Your task to perform on an android device: What is the news today? Image 0: 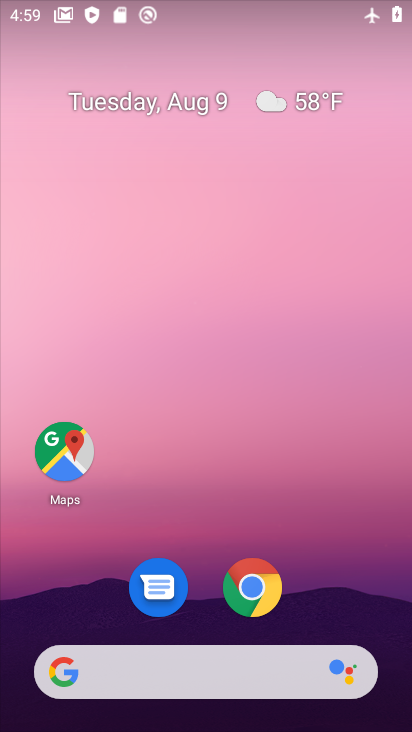
Step 0: drag from (189, 308) to (147, 283)
Your task to perform on an android device: What is the news today? Image 1: 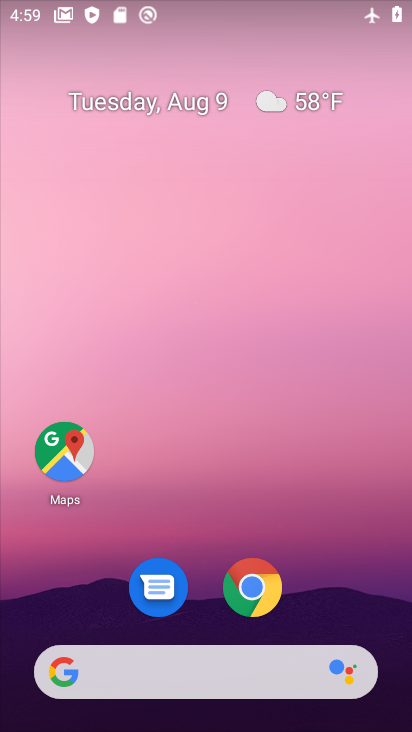
Step 1: drag from (206, 526) to (149, 250)
Your task to perform on an android device: What is the news today? Image 2: 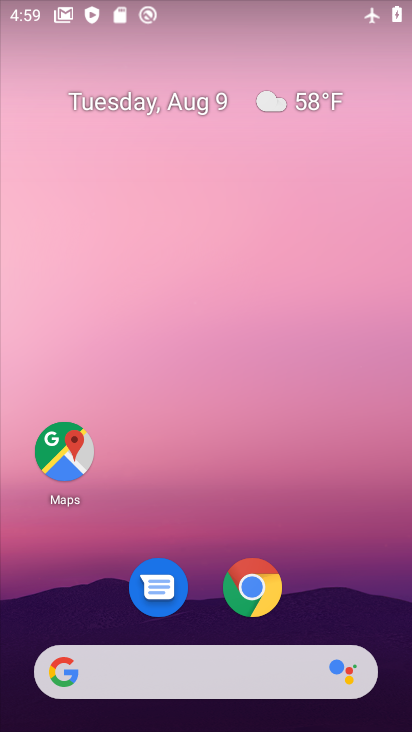
Step 2: drag from (215, 452) to (181, 167)
Your task to perform on an android device: What is the news today? Image 3: 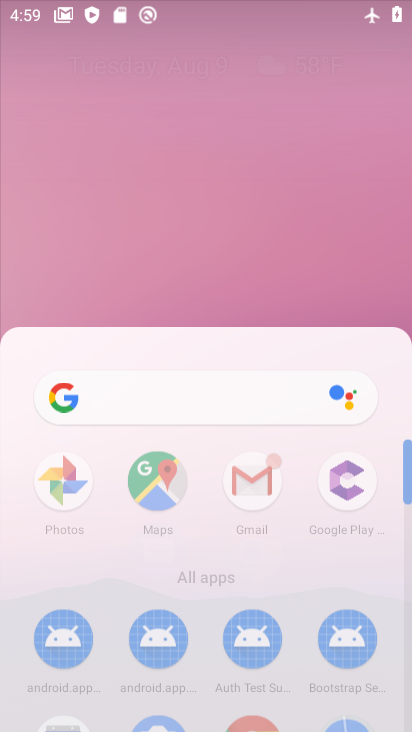
Step 3: drag from (204, 381) to (184, 125)
Your task to perform on an android device: What is the news today? Image 4: 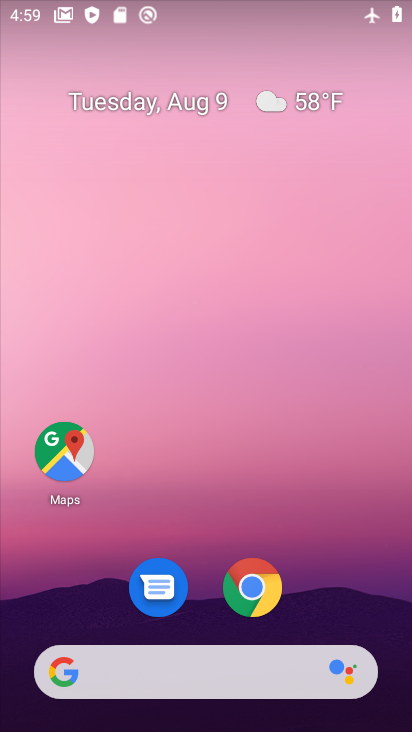
Step 4: click (252, 592)
Your task to perform on an android device: What is the news today? Image 5: 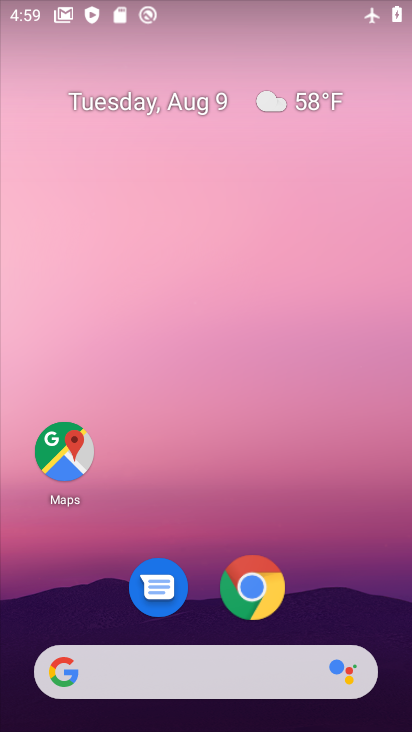
Step 5: click (252, 592)
Your task to perform on an android device: What is the news today? Image 6: 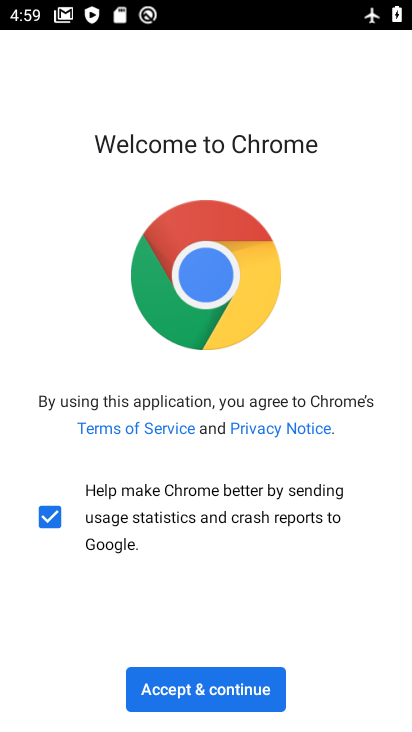
Step 6: click (223, 686)
Your task to perform on an android device: What is the news today? Image 7: 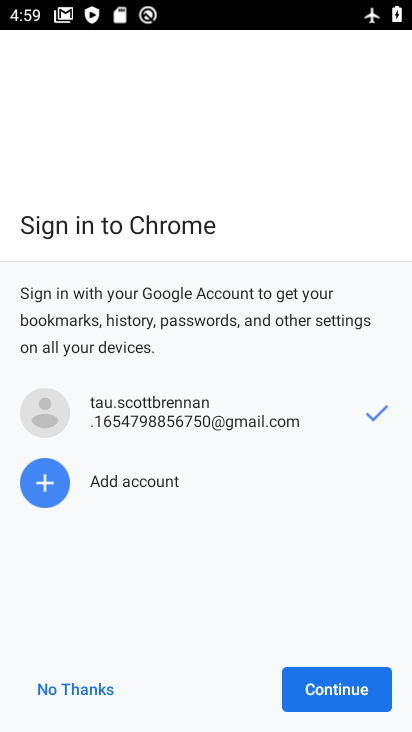
Step 7: click (233, 693)
Your task to perform on an android device: What is the news today? Image 8: 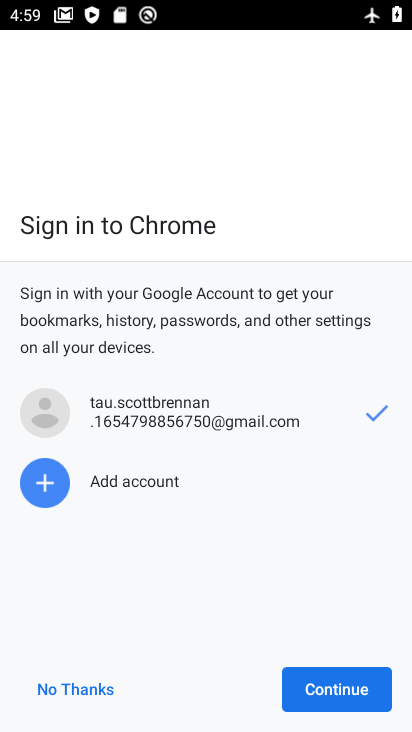
Step 8: click (234, 694)
Your task to perform on an android device: What is the news today? Image 9: 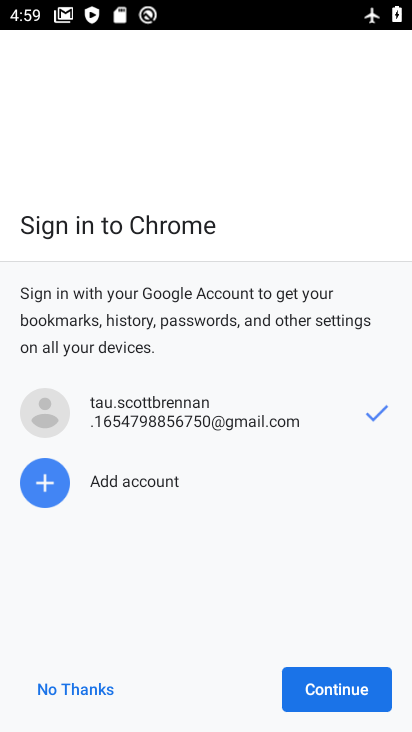
Step 9: click (73, 680)
Your task to perform on an android device: What is the news today? Image 10: 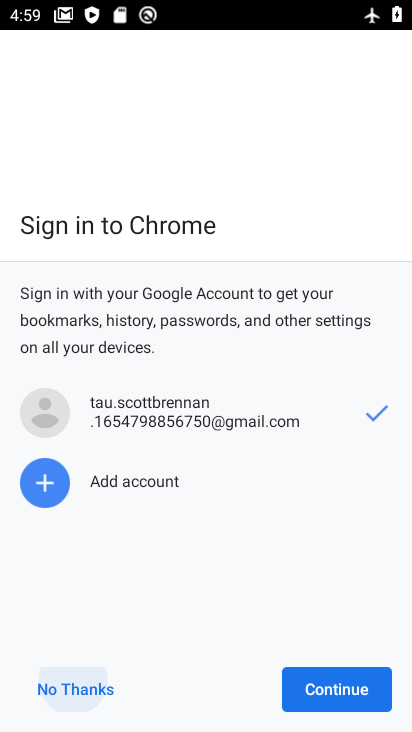
Step 10: click (72, 679)
Your task to perform on an android device: What is the news today? Image 11: 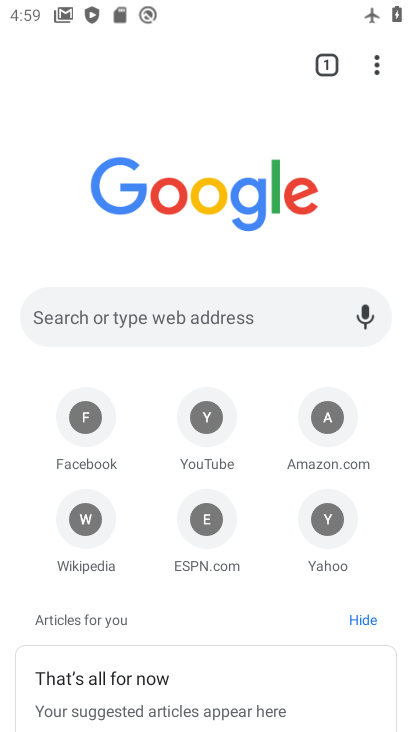
Step 11: drag from (213, 534) to (150, 176)
Your task to perform on an android device: What is the news today? Image 12: 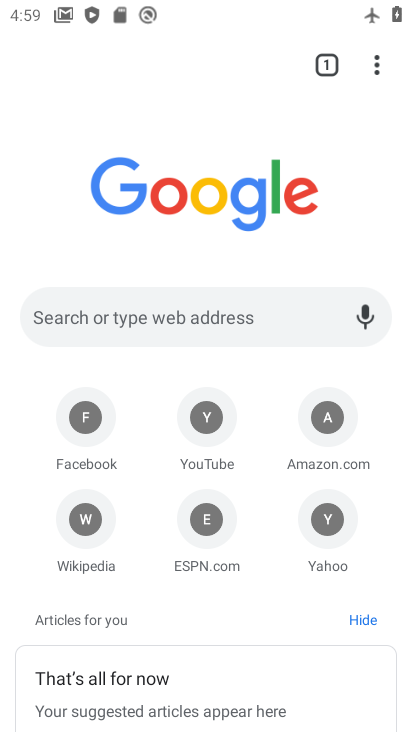
Step 12: drag from (209, 568) to (216, 101)
Your task to perform on an android device: What is the news today? Image 13: 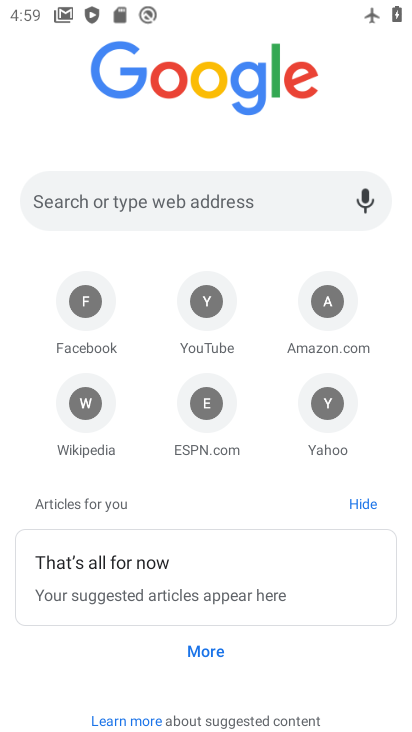
Step 13: drag from (240, 499) to (156, 205)
Your task to perform on an android device: What is the news today? Image 14: 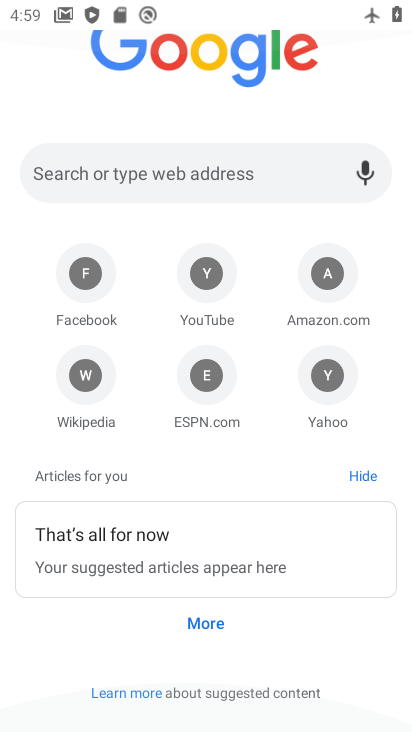
Step 14: drag from (161, 492) to (178, 223)
Your task to perform on an android device: What is the news today? Image 15: 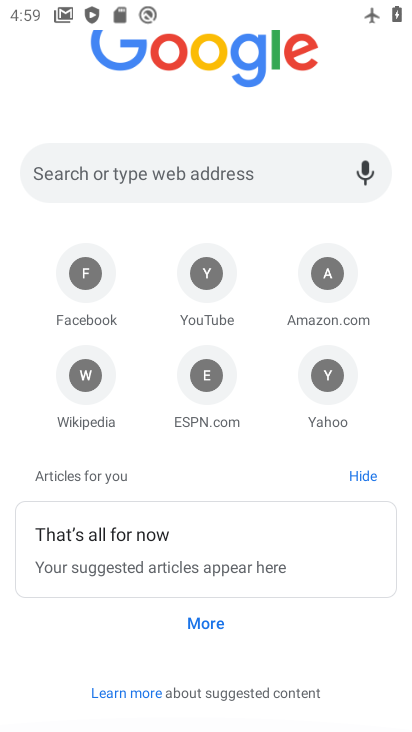
Step 15: drag from (183, 559) to (207, 261)
Your task to perform on an android device: What is the news today? Image 16: 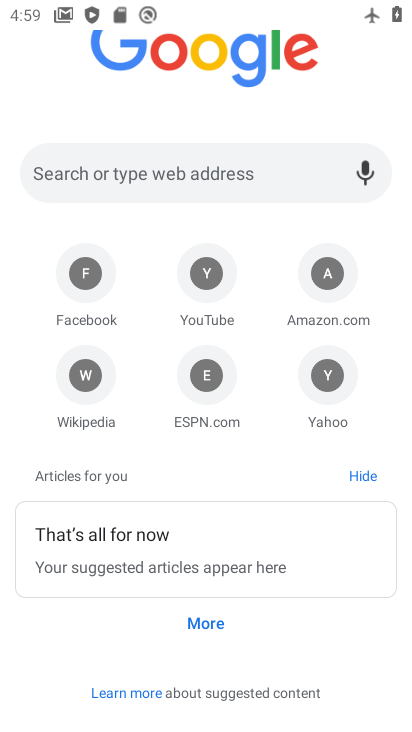
Step 16: drag from (228, 503) to (243, 121)
Your task to perform on an android device: What is the news today? Image 17: 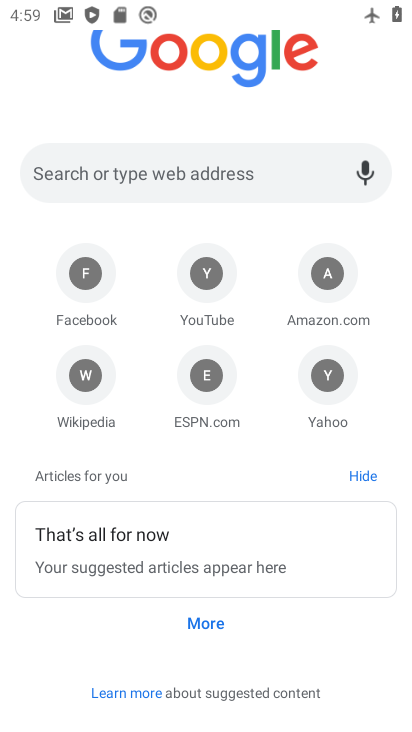
Step 17: drag from (254, 618) to (266, 140)
Your task to perform on an android device: What is the news today? Image 18: 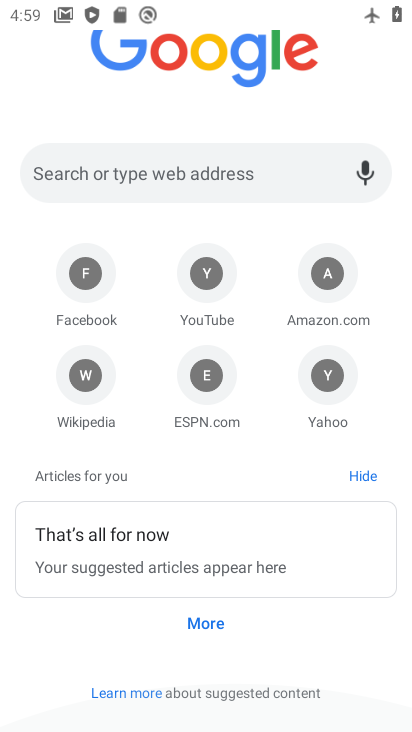
Step 18: click (198, 323)
Your task to perform on an android device: What is the news today? Image 19: 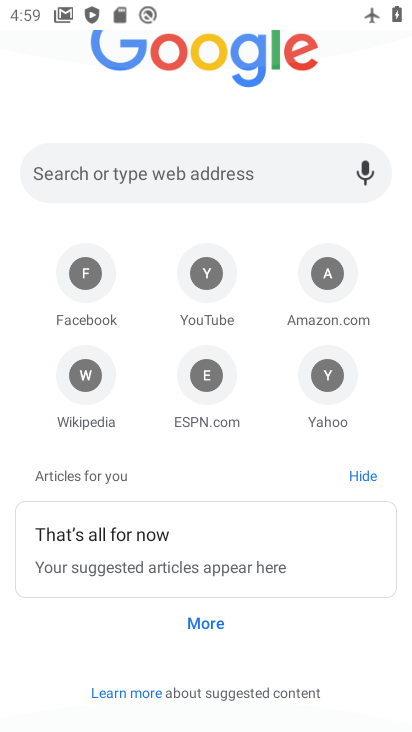
Step 19: drag from (206, 644) to (237, 236)
Your task to perform on an android device: What is the news today? Image 20: 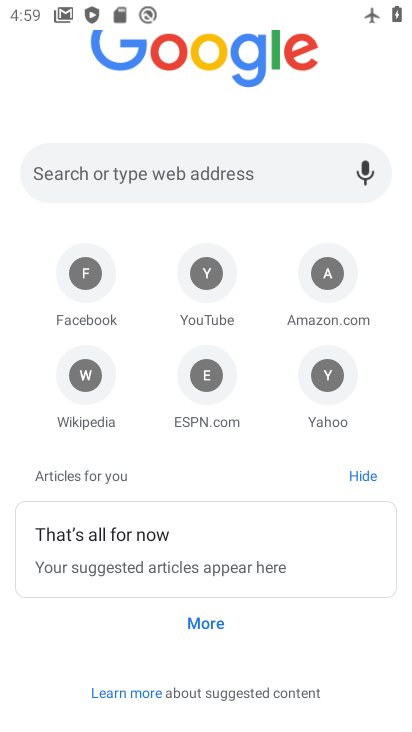
Step 20: click (199, 617)
Your task to perform on an android device: What is the news today? Image 21: 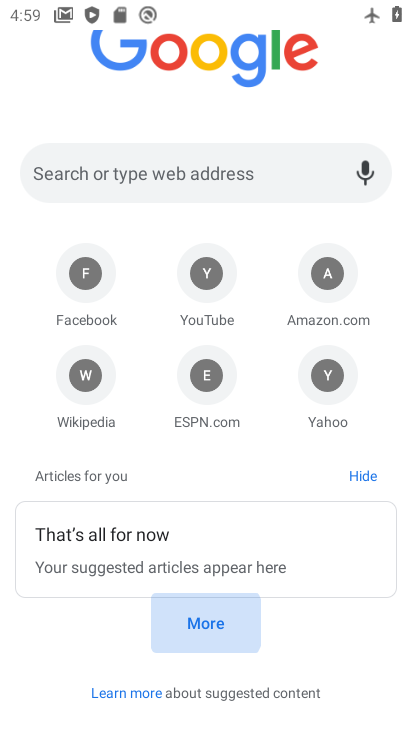
Step 21: click (200, 618)
Your task to perform on an android device: What is the news today? Image 22: 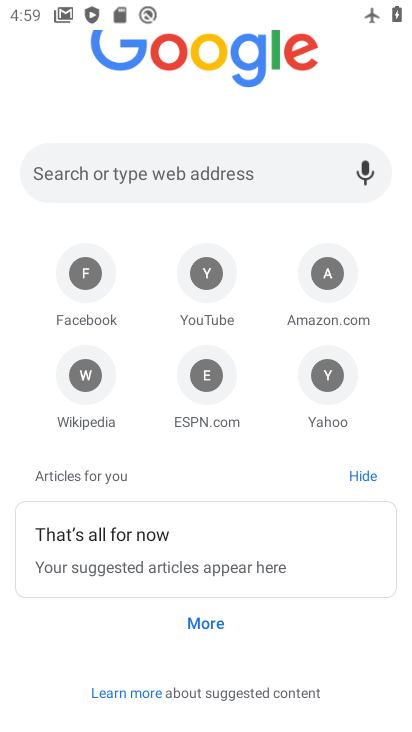
Step 22: click (206, 616)
Your task to perform on an android device: What is the news today? Image 23: 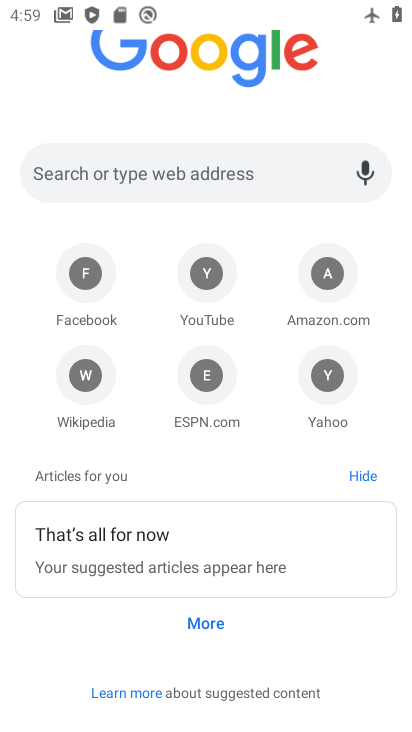
Step 23: click (216, 628)
Your task to perform on an android device: What is the news today? Image 24: 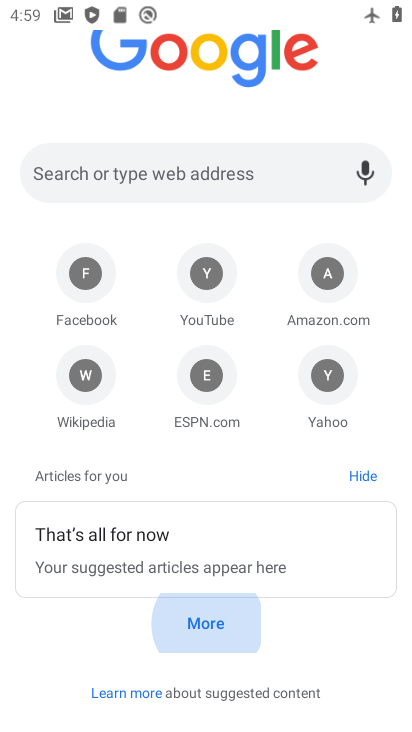
Step 24: click (217, 630)
Your task to perform on an android device: What is the news today? Image 25: 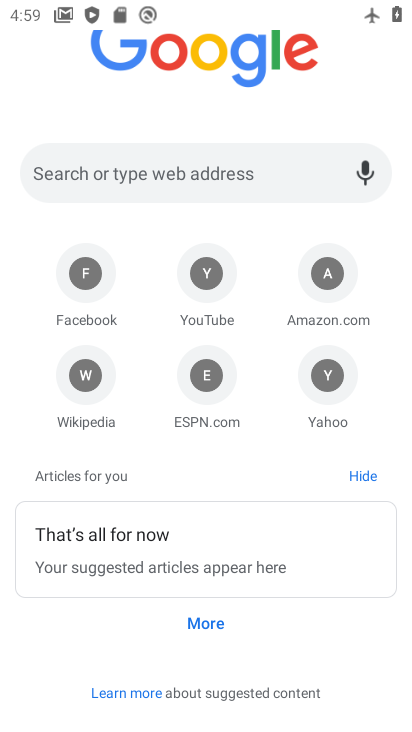
Step 25: click (218, 631)
Your task to perform on an android device: What is the news today? Image 26: 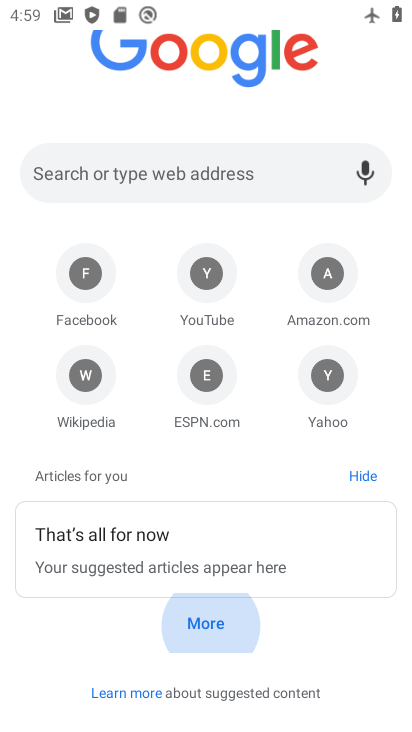
Step 26: click (218, 631)
Your task to perform on an android device: What is the news today? Image 27: 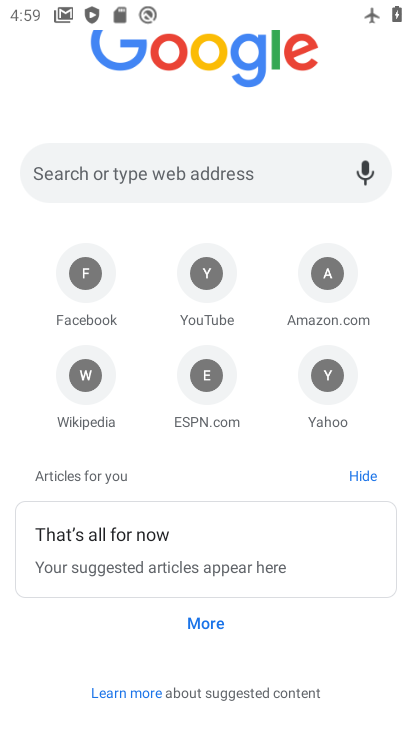
Step 27: drag from (249, 486) to (248, 318)
Your task to perform on an android device: What is the news today? Image 28: 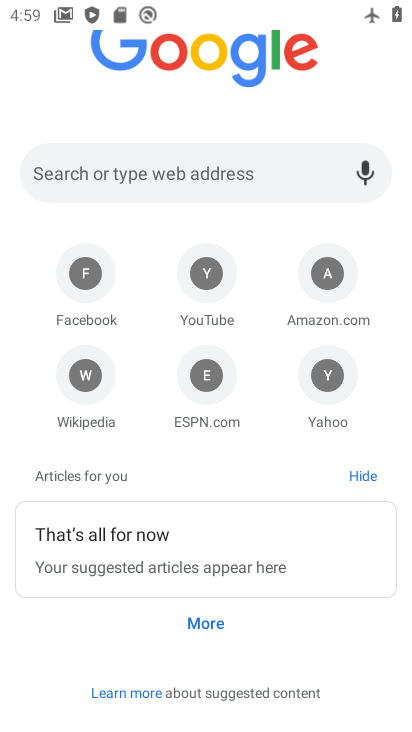
Step 28: drag from (275, 568) to (278, 191)
Your task to perform on an android device: What is the news today? Image 29: 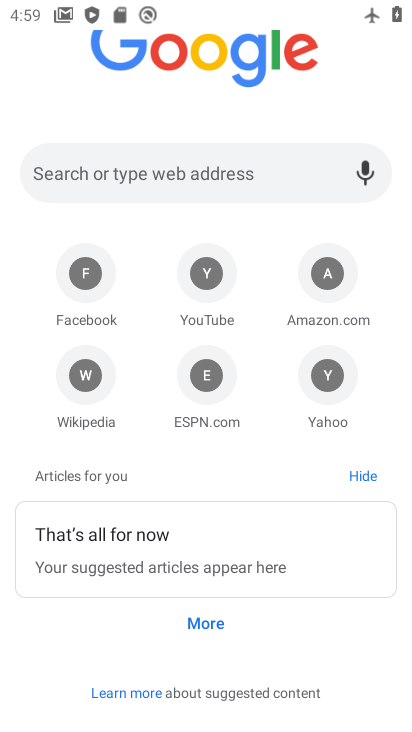
Step 29: click (357, 473)
Your task to perform on an android device: What is the news today? Image 30: 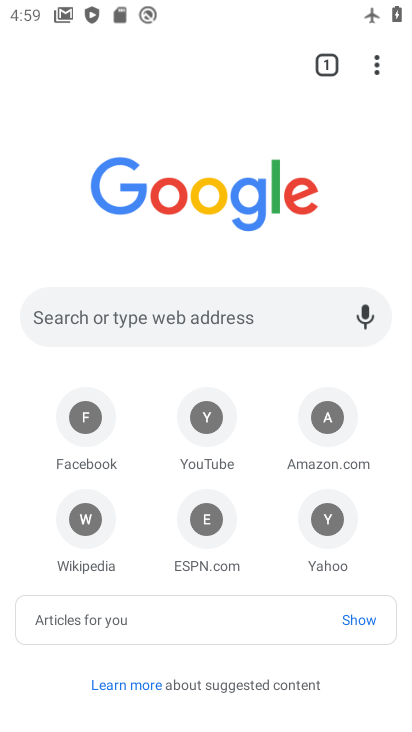
Step 30: drag from (258, 594) to (256, 350)
Your task to perform on an android device: What is the news today? Image 31: 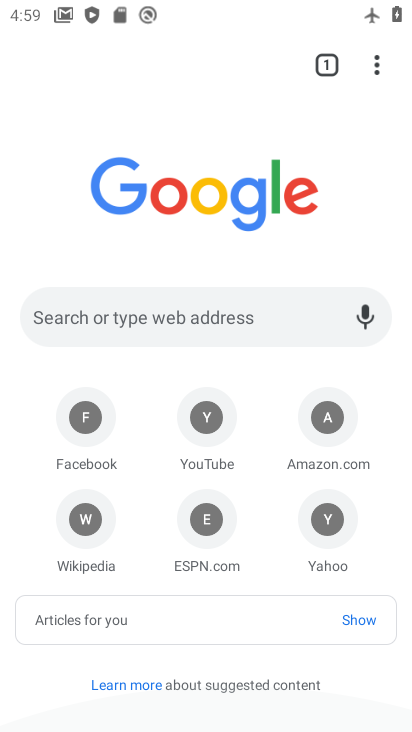
Step 31: drag from (240, 463) to (245, 240)
Your task to perform on an android device: What is the news today? Image 32: 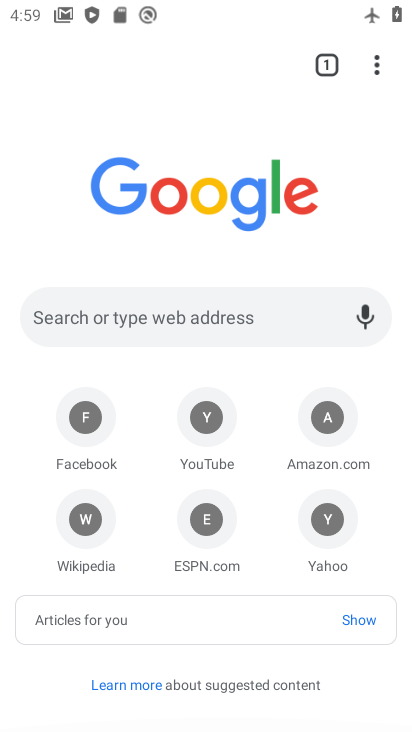
Step 32: drag from (309, 504) to (337, 282)
Your task to perform on an android device: What is the news today? Image 33: 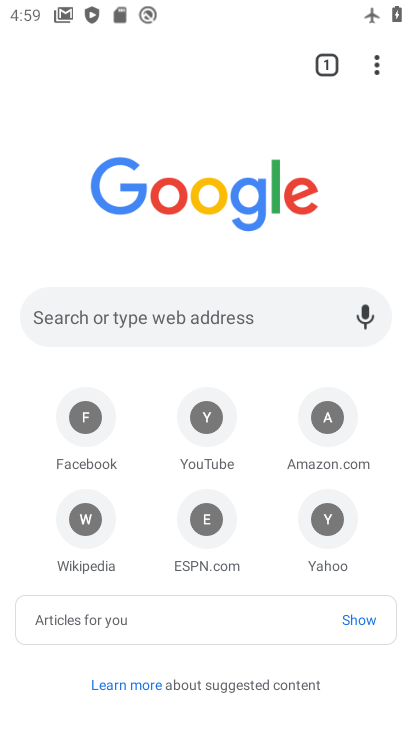
Step 33: click (355, 617)
Your task to perform on an android device: What is the news today? Image 34: 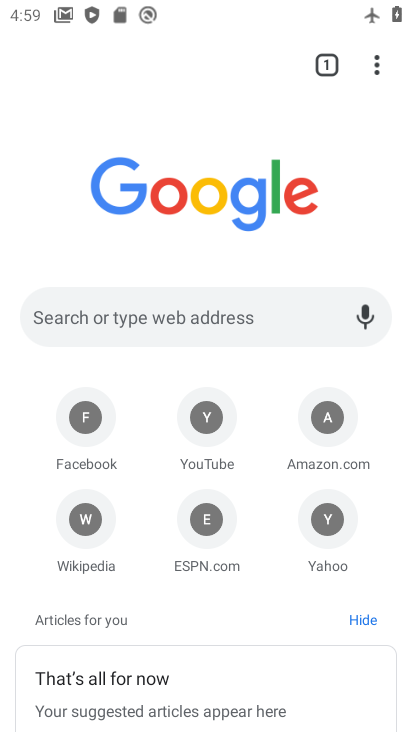
Step 34: drag from (269, 609) to (261, 332)
Your task to perform on an android device: What is the news today? Image 35: 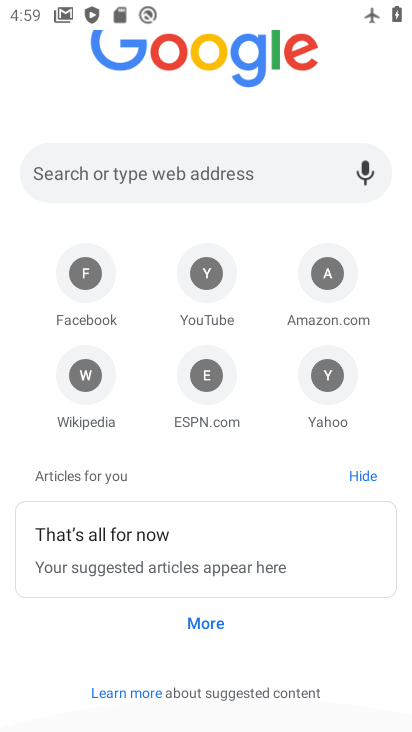
Step 35: drag from (233, 568) to (246, 277)
Your task to perform on an android device: What is the news today? Image 36: 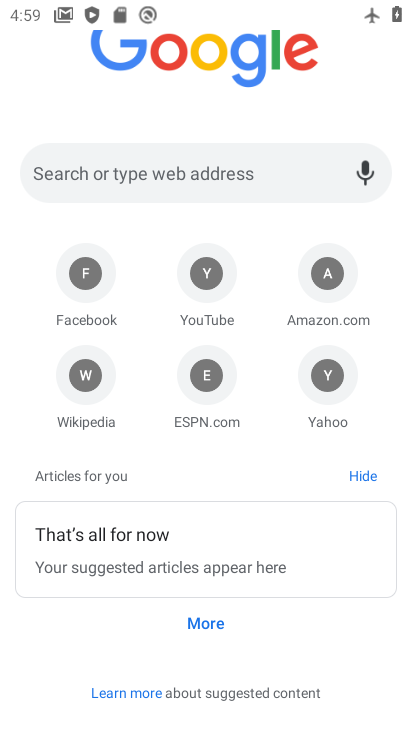
Step 36: drag from (231, 521) to (238, 297)
Your task to perform on an android device: What is the news today? Image 37: 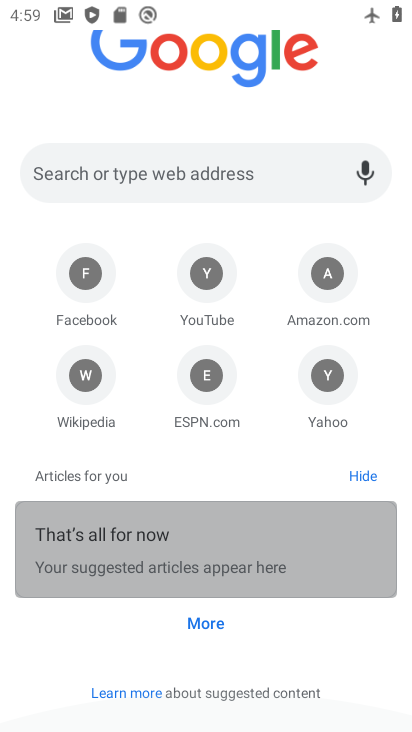
Step 37: drag from (259, 519) to (265, 465)
Your task to perform on an android device: What is the news today? Image 38: 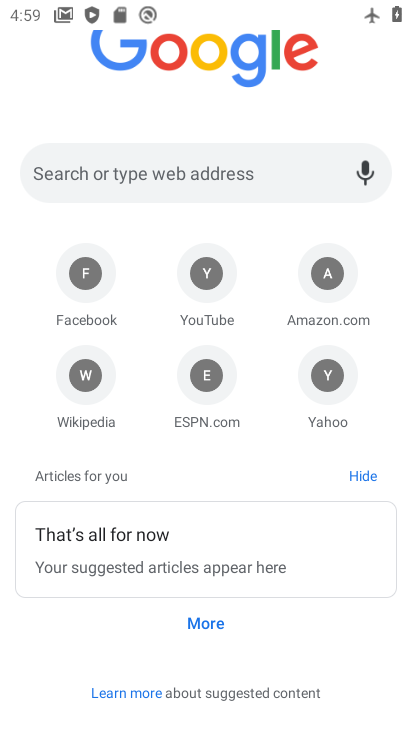
Step 38: click (195, 637)
Your task to perform on an android device: What is the news today? Image 39: 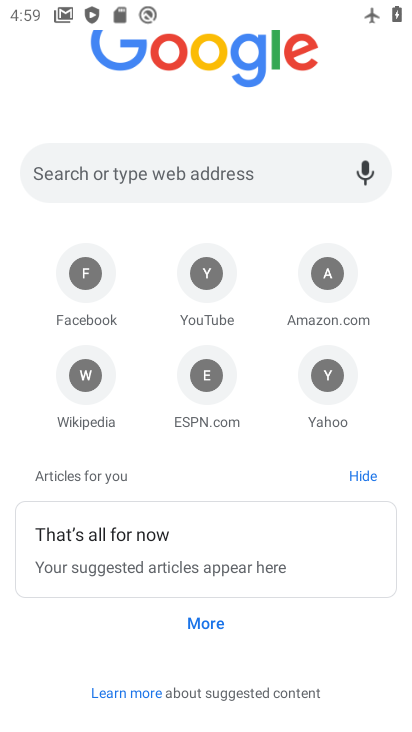
Step 39: task complete